Your task to perform on an android device: change text size in settings app Image 0: 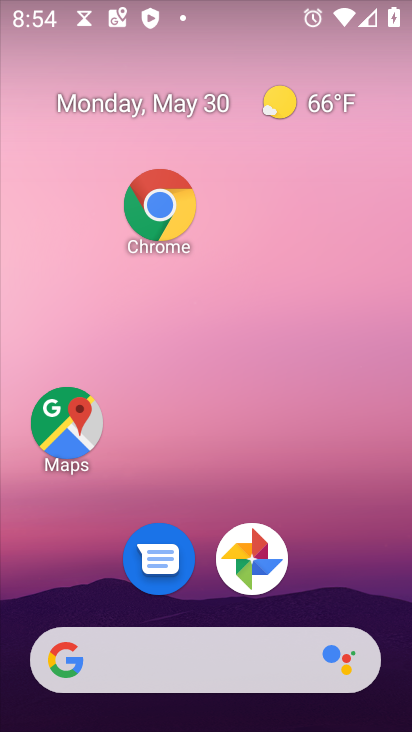
Step 0: drag from (254, 395) to (225, 168)
Your task to perform on an android device: change text size in settings app Image 1: 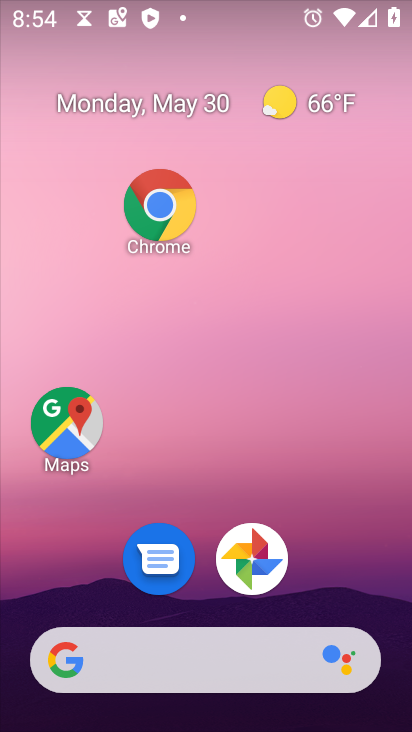
Step 1: drag from (274, 689) to (213, 113)
Your task to perform on an android device: change text size in settings app Image 2: 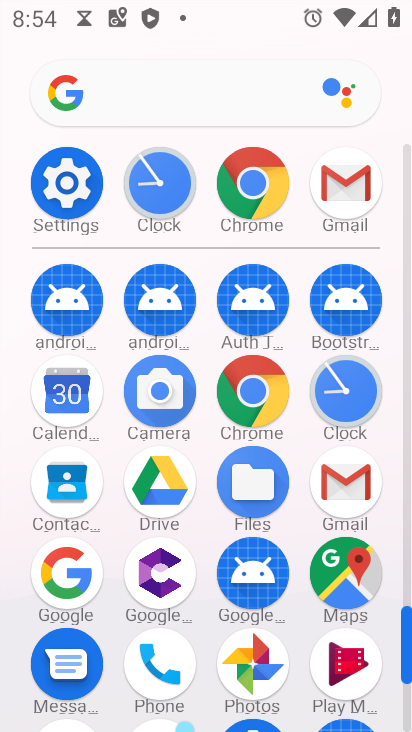
Step 2: click (70, 199)
Your task to perform on an android device: change text size in settings app Image 3: 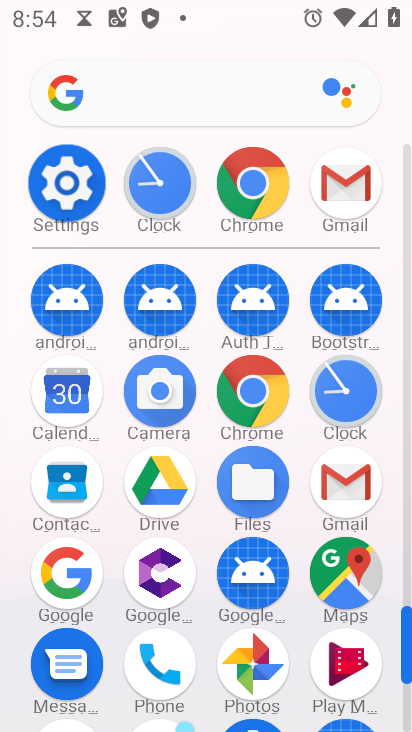
Step 3: click (70, 199)
Your task to perform on an android device: change text size in settings app Image 4: 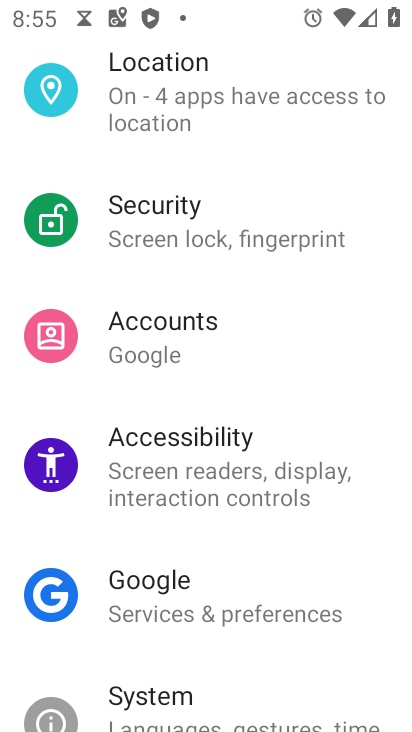
Step 4: drag from (231, 485) to (170, 86)
Your task to perform on an android device: change text size in settings app Image 5: 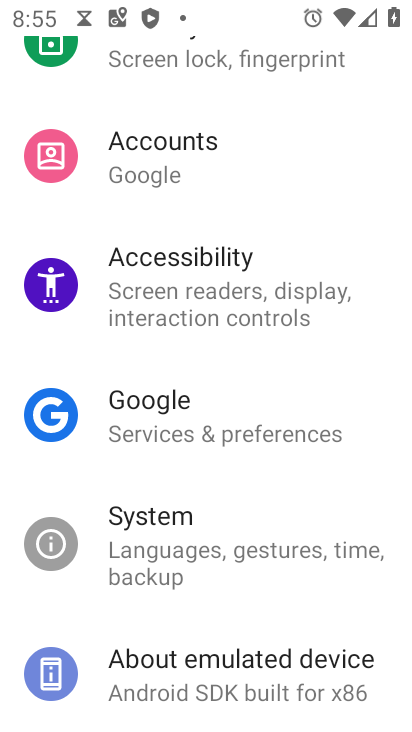
Step 5: drag from (167, 602) to (162, 110)
Your task to perform on an android device: change text size in settings app Image 6: 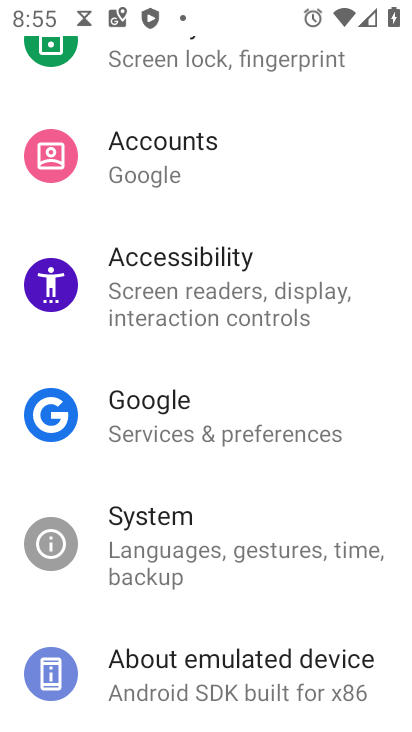
Step 6: drag from (196, 510) to (191, 126)
Your task to perform on an android device: change text size in settings app Image 7: 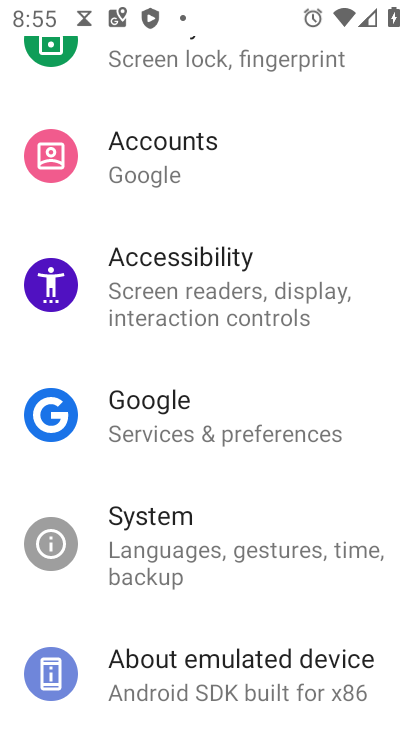
Step 7: drag from (172, 242) to (190, 576)
Your task to perform on an android device: change text size in settings app Image 8: 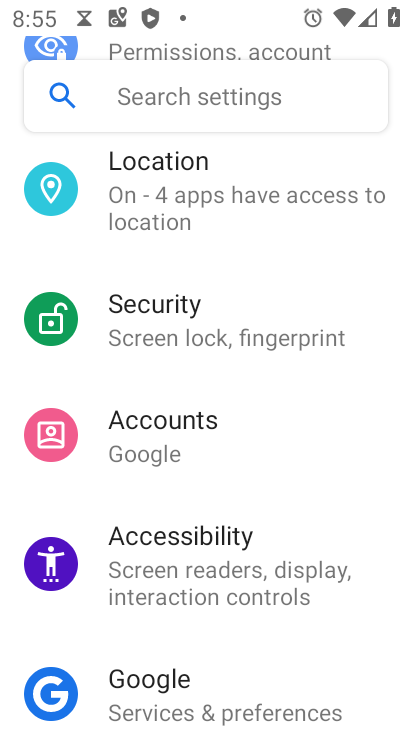
Step 8: drag from (153, 268) to (227, 687)
Your task to perform on an android device: change text size in settings app Image 9: 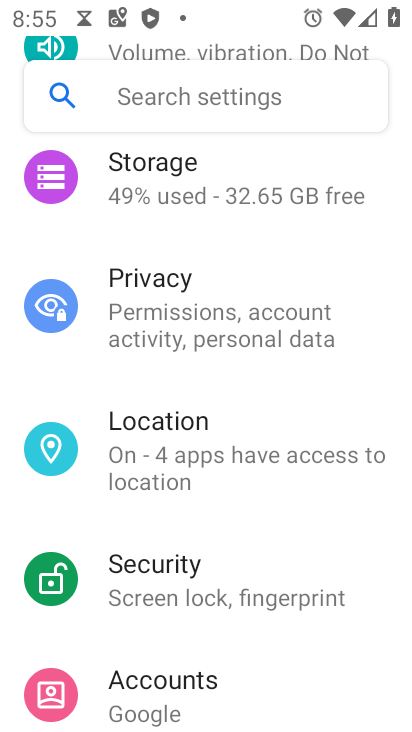
Step 9: drag from (209, 289) to (275, 715)
Your task to perform on an android device: change text size in settings app Image 10: 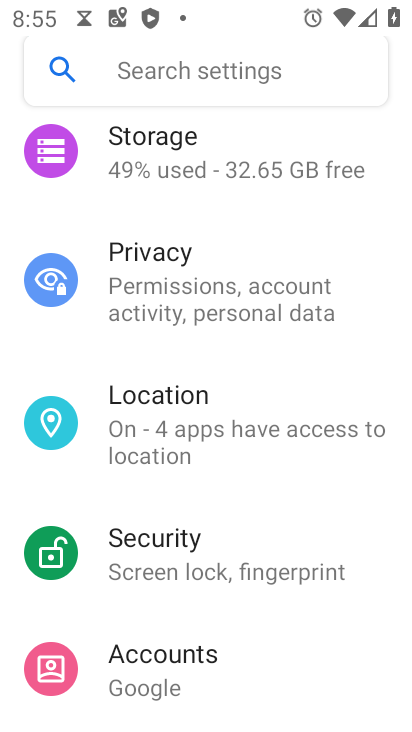
Step 10: drag from (182, 296) to (241, 720)
Your task to perform on an android device: change text size in settings app Image 11: 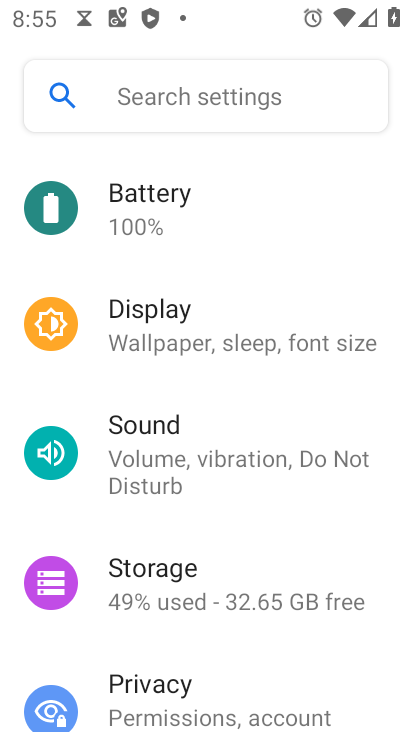
Step 11: drag from (153, 289) to (148, 438)
Your task to perform on an android device: change text size in settings app Image 12: 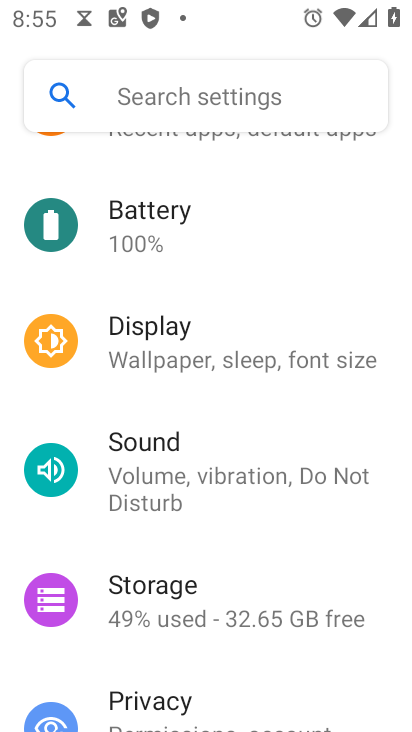
Step 12: drag from (158, 258) to (272, 536)
Your task to perform on an android device: change text size in settings app Image 13: 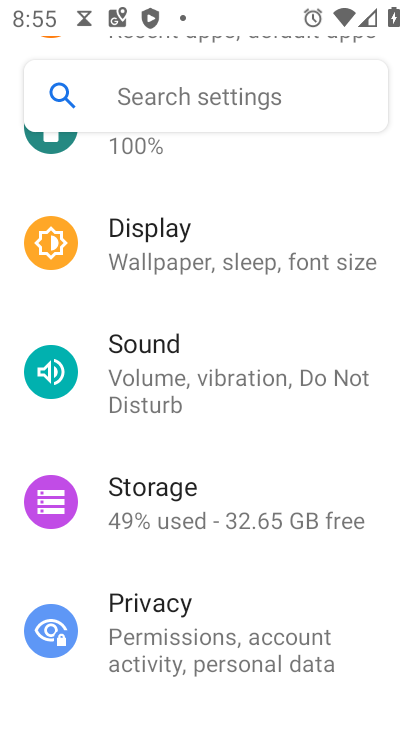
Step 13: drag from (242, 326) to (251, 691)
Your task to perform on an android device: change text size in settings app Image 14: 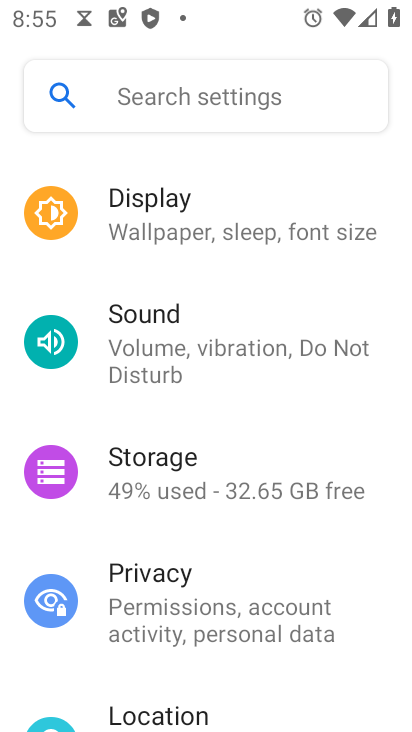
Step 14: click (165, 219)
Your task to perform on an android device: change text size in settings app Image 15: 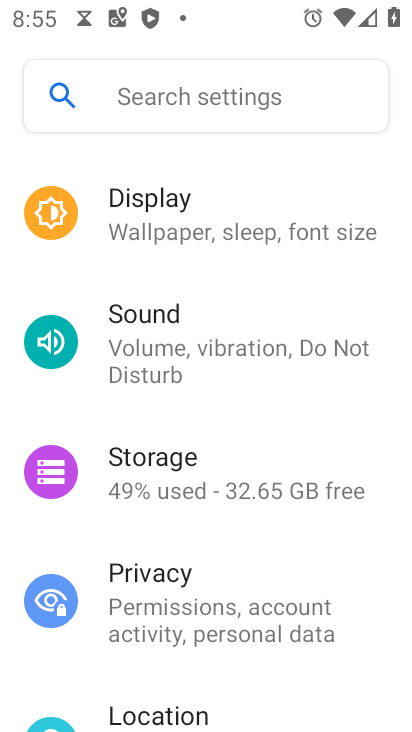
Step 15: click (165, 219)
Your task to perform on an android device: change text size in settings app Image 16: 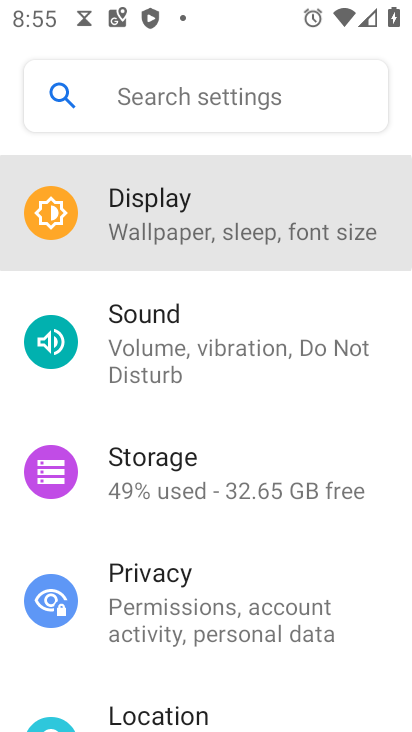
Step 16: click (165, 219)
Your task to perform on an android device: change text size in settings app Image 17: 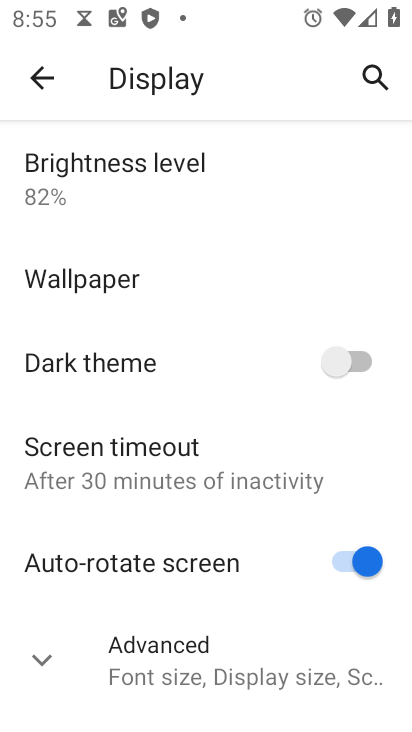
Step 17: click (185, 658)
Your task to perform on an android device: change text size in settings app Image 18: 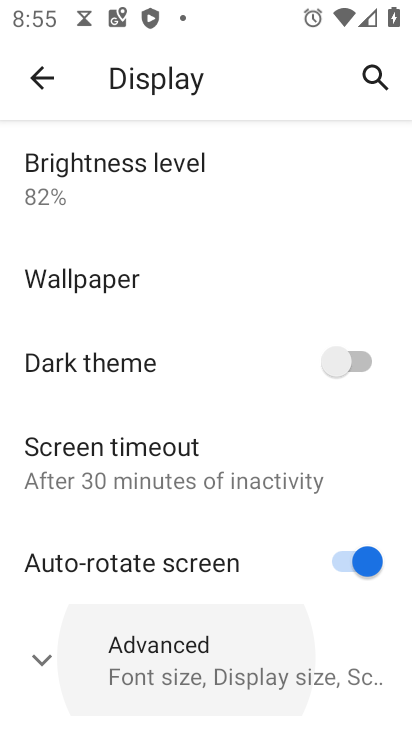
Step 18: click (185, 658)
Your task to perform on an android device: change text size in settings app Image 19: 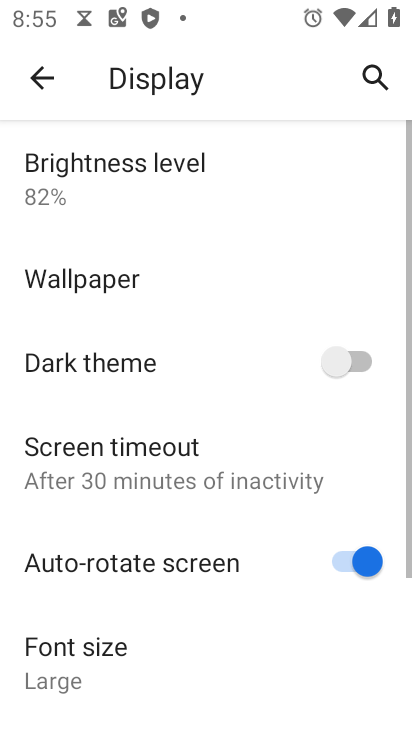
Step 19: drag from (165, 585) to (154, 106)
Your task to perform on an android device: change text size in settings app Image 20: 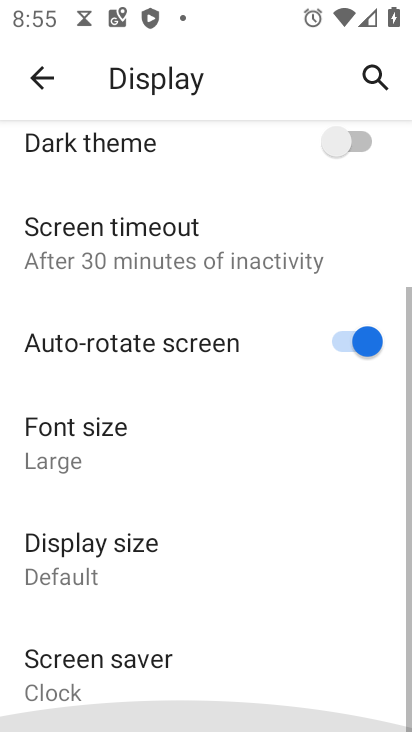
Step 20: drag from (201, 528) to (201, 135)
Your task to perform on an android device: change text size in settings app Image 21: 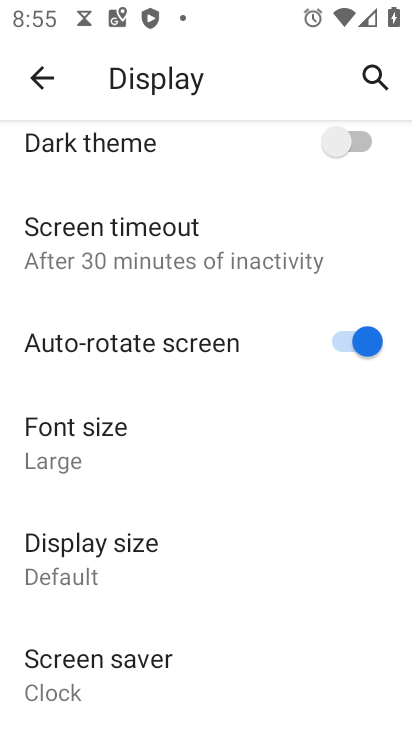
Step 21: click (71, 458)
Your task to perform on an android device: change text size in settings app Image 22: 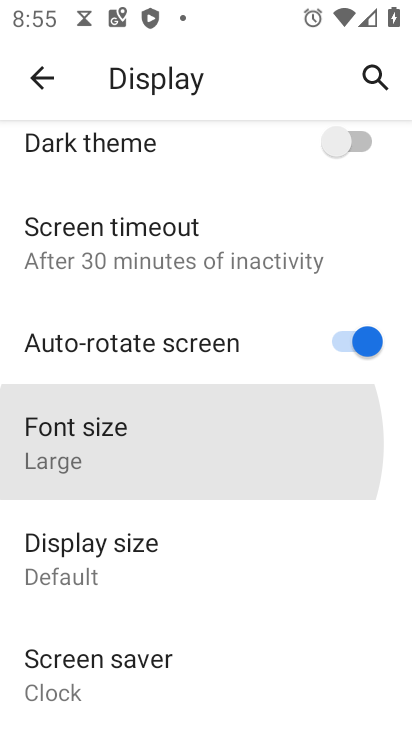
Step 22: click (71, 458)
Your task to perform on an android device: change text size in settings app Image 23: 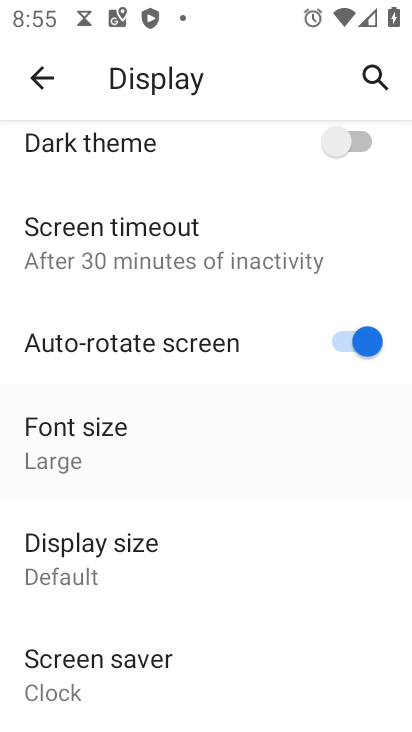
Step 23: click (71, 458)
Your task to perform on an android device: change text size in settings app Image 24: 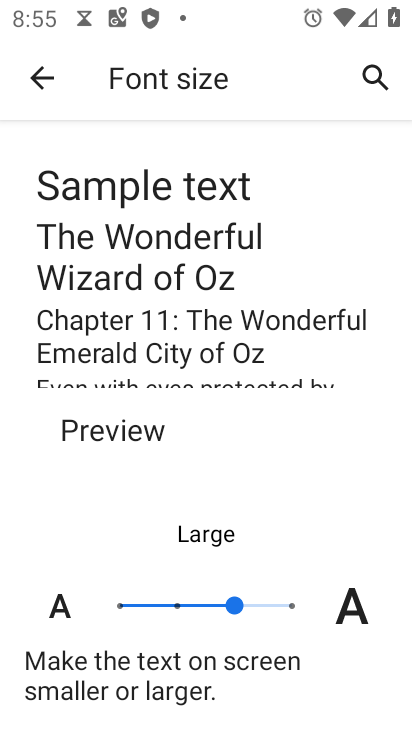
Step 24: click (177, 609)
Your task to perform on an android device: change text size in settings app Image 25: 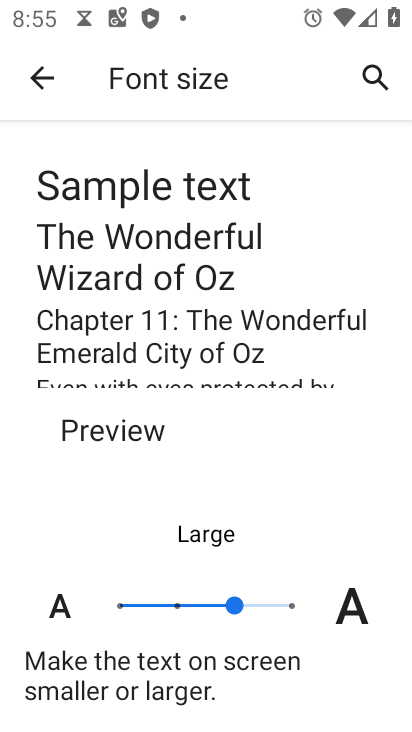
Step 25: click (177, 609)
Your task to perform on an android device: change text size in settings app Image 26: 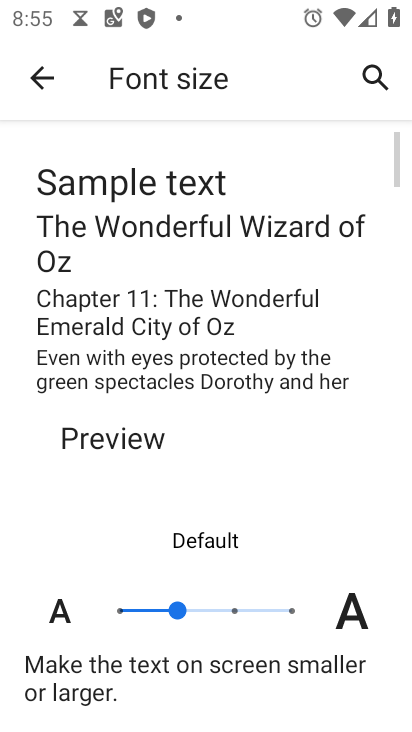
Step 26: task complete